Your task to perform on an android device: Go to settings Image 0: 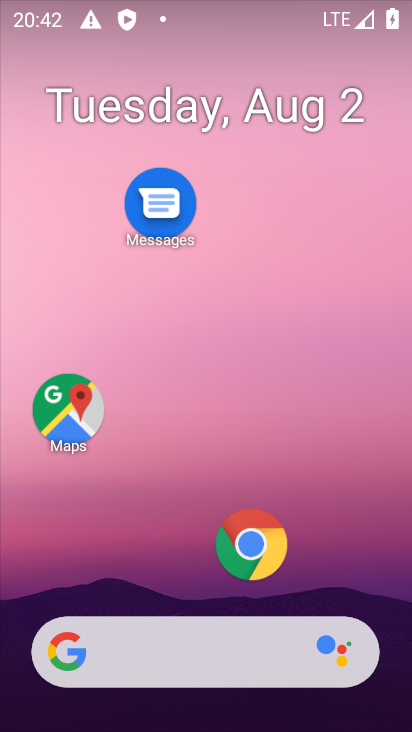
Step 0: drag from (170, 585) to (230, 201)
Your task to perform on an android device: Go to settings Image 1: 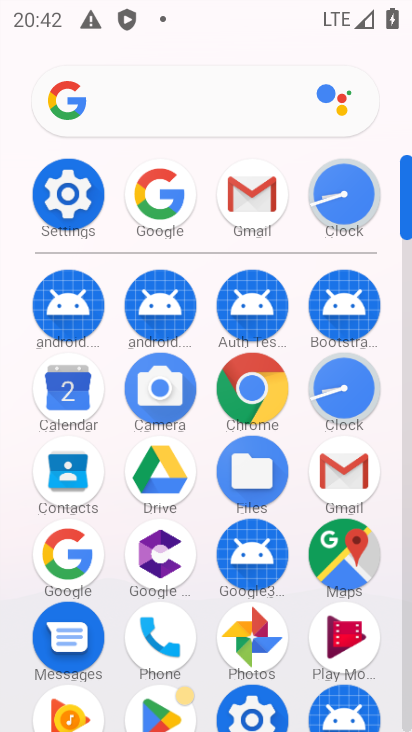
Step 1: click (70, 224)
Your task to perform on an android device: Go to settings Image 2: 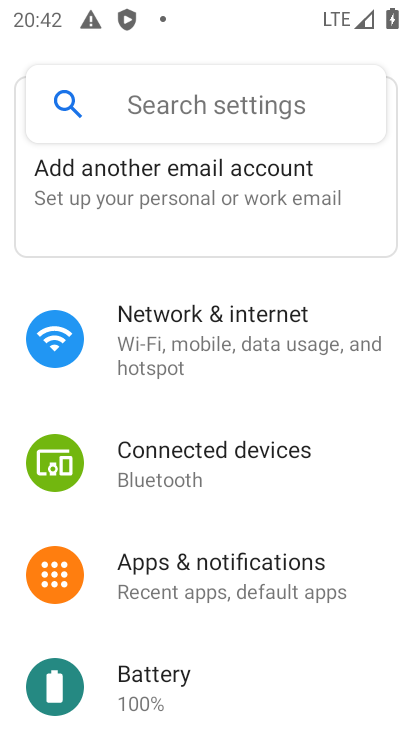
Step 2: task complete